Your task to perform on an android device: open device folders in google photos Image 0: 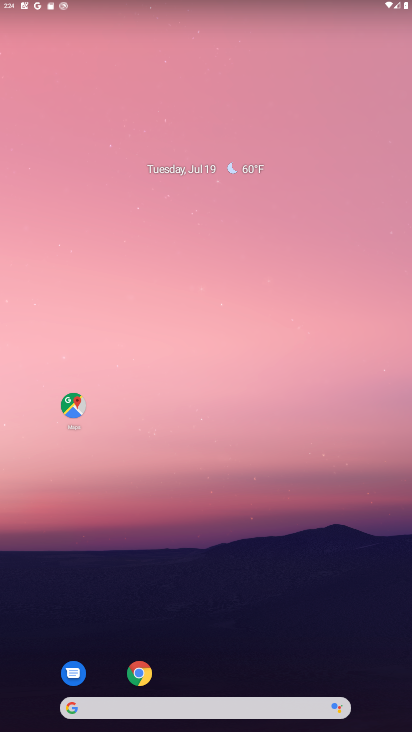
Step 0: drag from (220, 654) to (319, 97)
Your task to perform on an android device: open device folders in google photos Image 1: 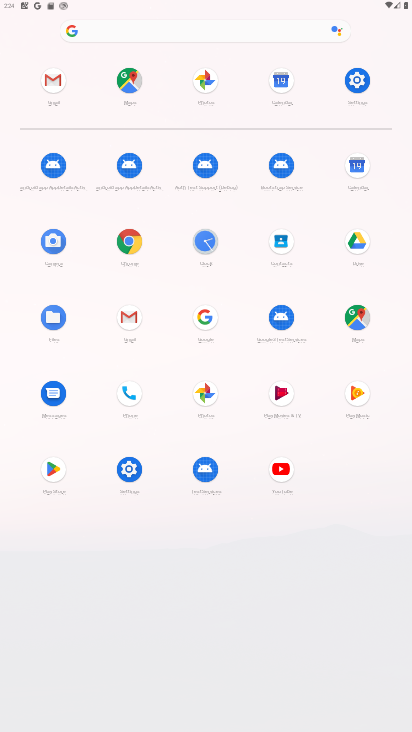
Step 1: click (208, 86)
Your task to perform on an android device: open device folders in google photos Image 2: 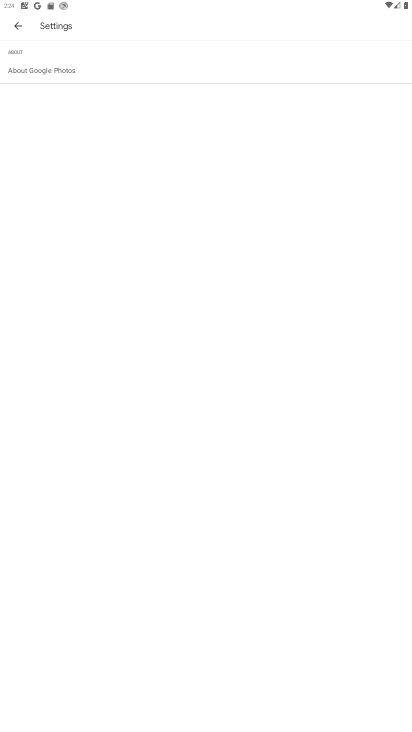
Step 2: click (15, 26)
Your task to perform on an android device: open device folders in google photos Image 3: 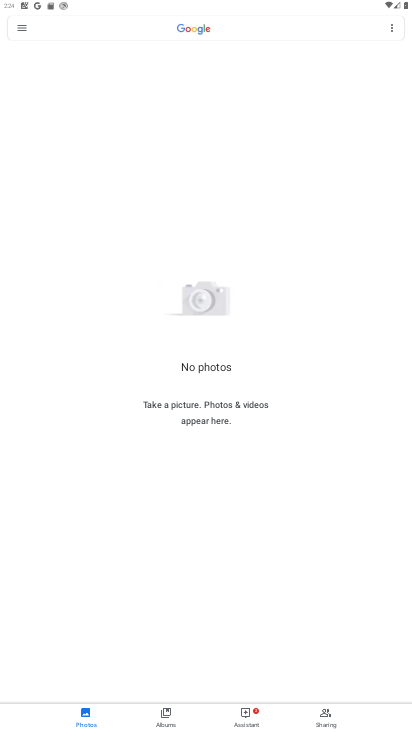
Step 3: click (15, 26)
Your task to perform on an android device: open device folders in google photos Image 4: 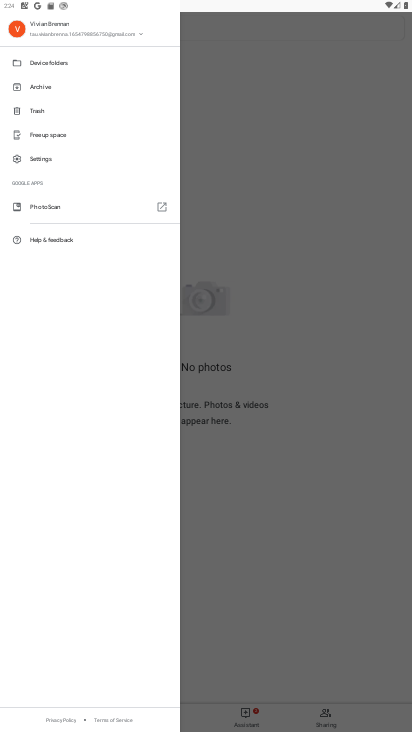
Step 4: click (60, 57)
Your task to perform on an android device: open device folders in google photos Image 5: 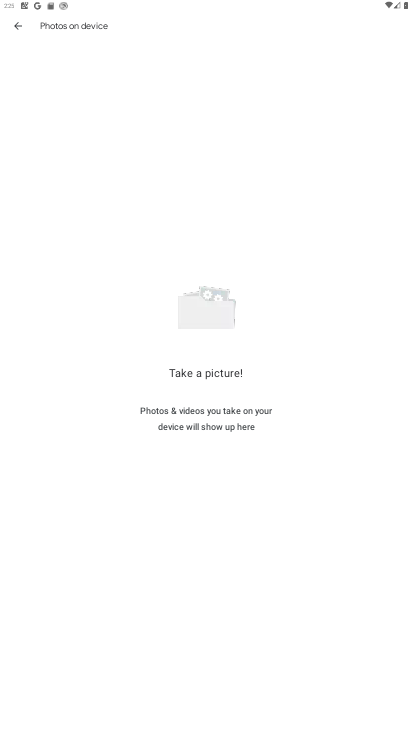
Step 5: task complete